Your task to perform on an android device: Show me productivity apps on the Play Store Image 0: 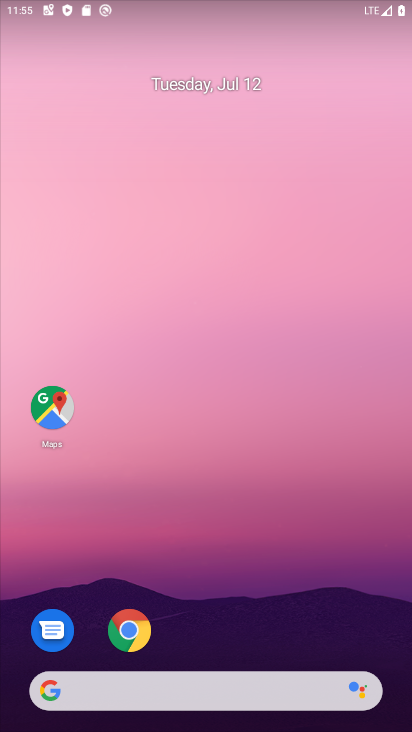
Step 0: drag from (384, 696) to (300, 100)
Your task to perform on an android device: Show me productivity apps on the Play Store Image 1: 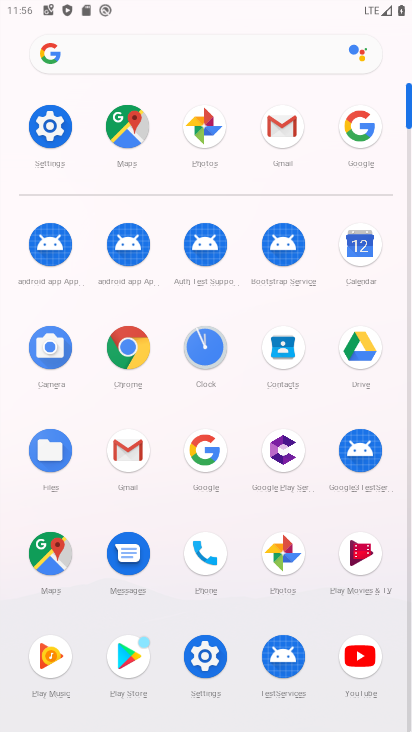
Step 1: click (108, 659)
Your task to perform on an android device: Show me productivity apps on the Play Store Image 2: 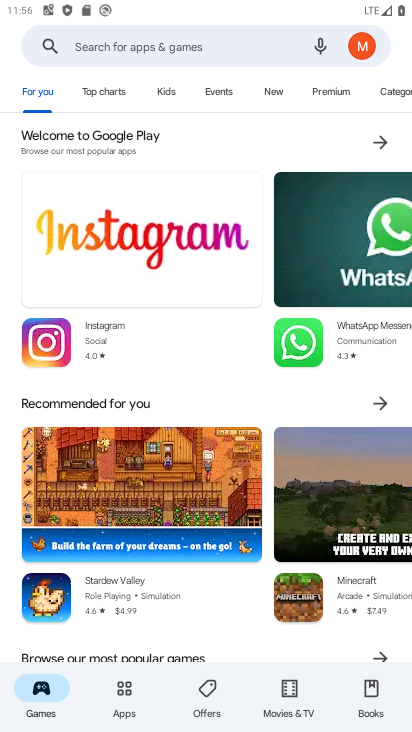
Step 2: task complete